Your task to perform on an android device: Open Google Image 0: 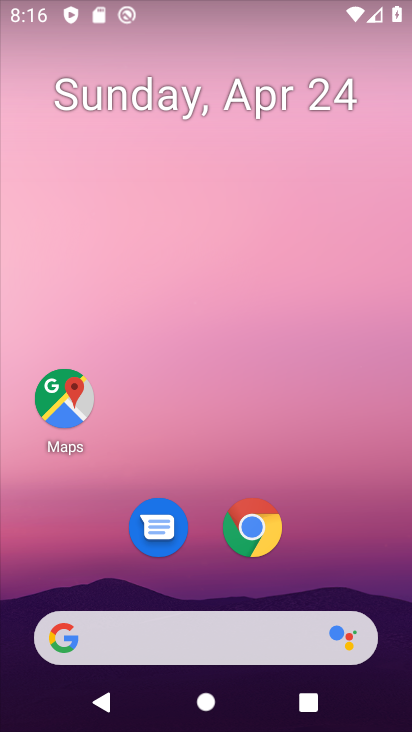
Step 0: drag from (166, 544) to (190, 145)
Your task to perform on an android device: Open Google Image 1: 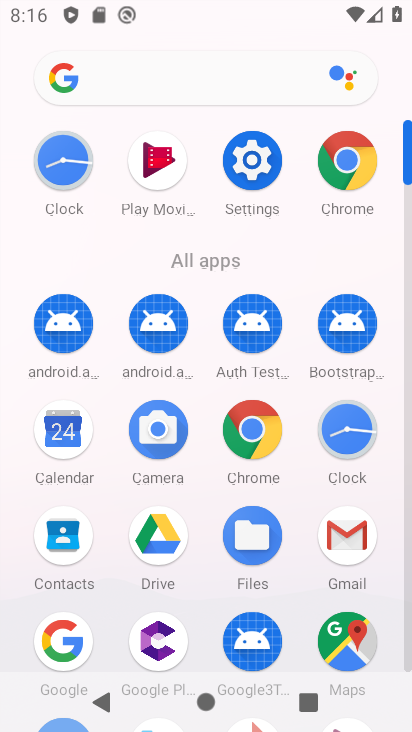
Step 1: click (59, 631)
Your task to perform on an android device: Open Google Image 2: 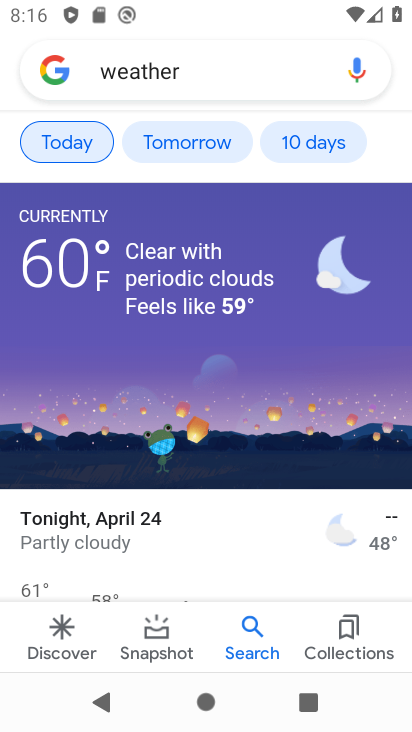
Step 2: task complete